Your task to perform on an android device: set the timer Image 0: 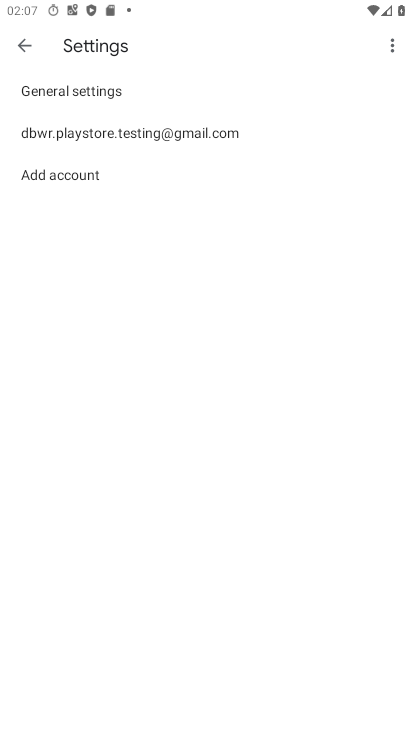
Step 0: press home button
Your task to perform on an android device: set the timer Image 1: 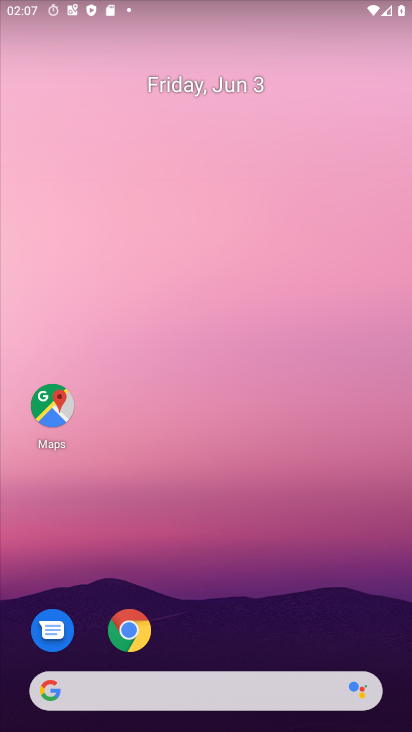
Step 1: drag from (262, 638) to (169, 215)
Your task to perform on an android device: set the timer Image 2: 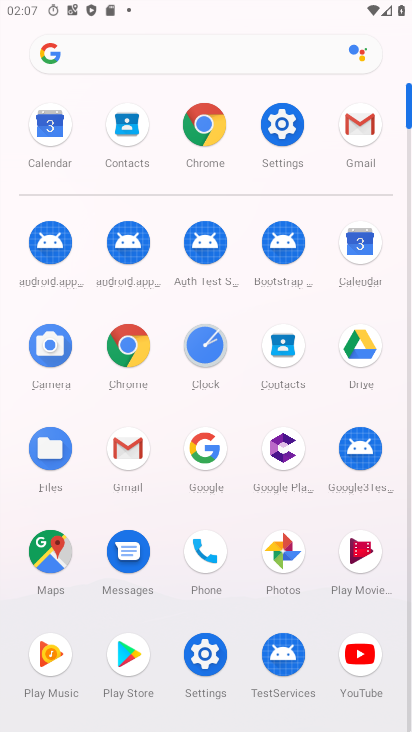
Step 2: click (200, 352)
Your task to perform on an android device: set the timer Image 3: 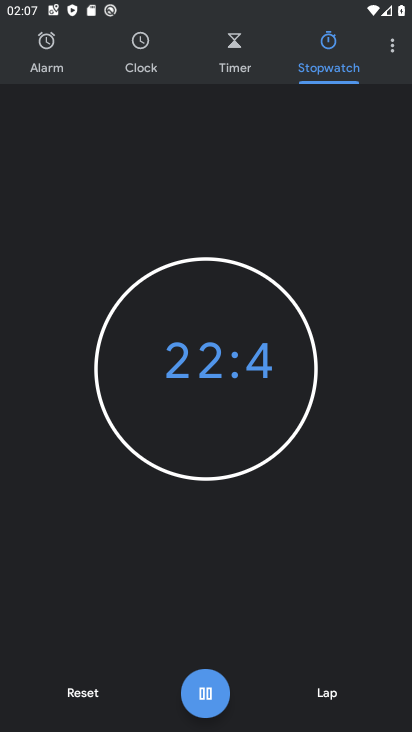
Step 3: click (235, 55)
Your task to perform on an android device: set the timer Image 4: 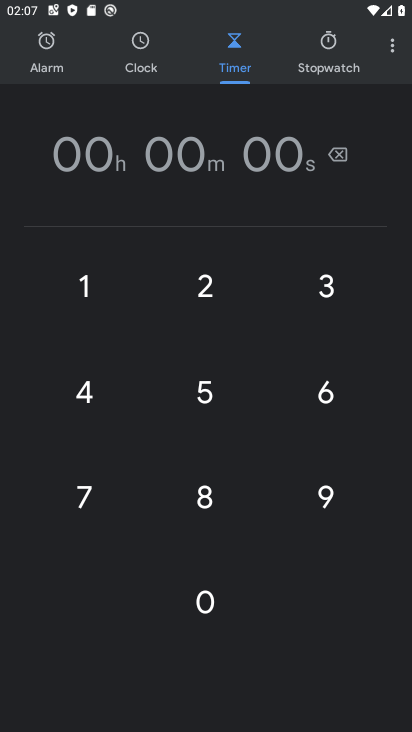
Step 4: type "1000000"
Your task to perform on an android device: set the timer Image 5: 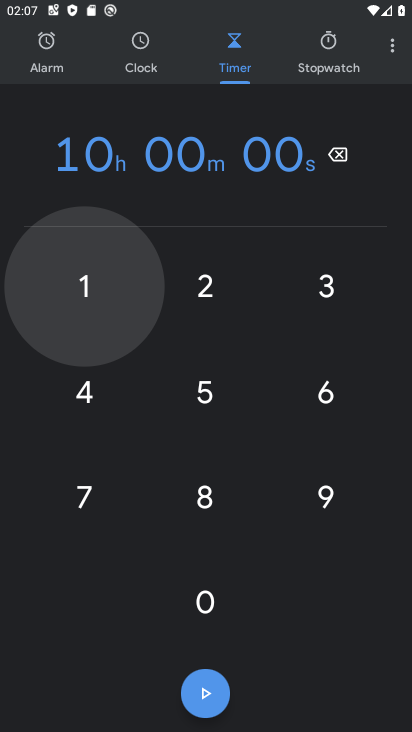
Step 5: click (214, 687)
Your task to perform on an android device: set the timer Image 6: 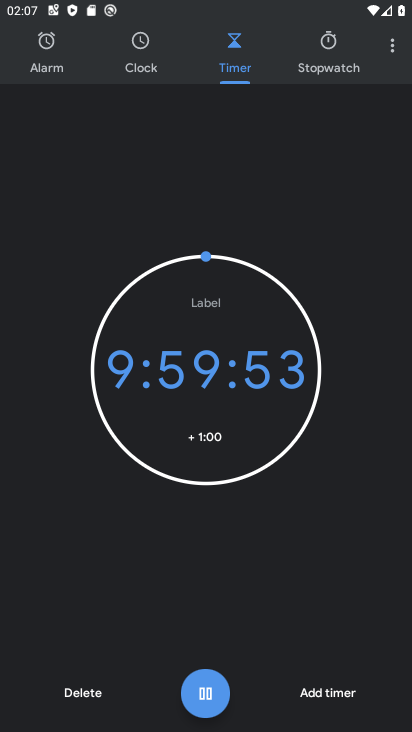
Step 6: task complete